Your task to perform on an android device: What's a good restaurant in Denver? Image 0: 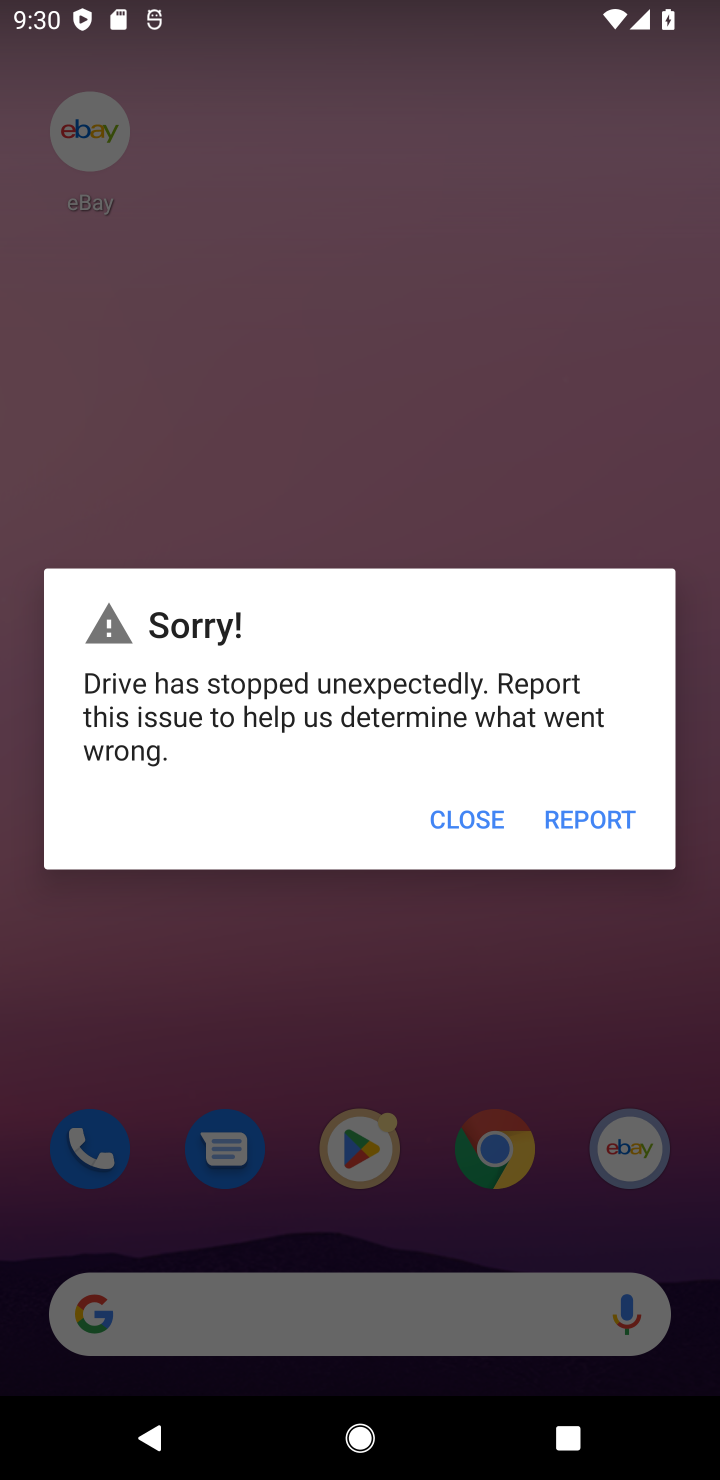
Step 0: press home button
Your task to perform on an android device: What's a good restaurant in Denver? Image 1: 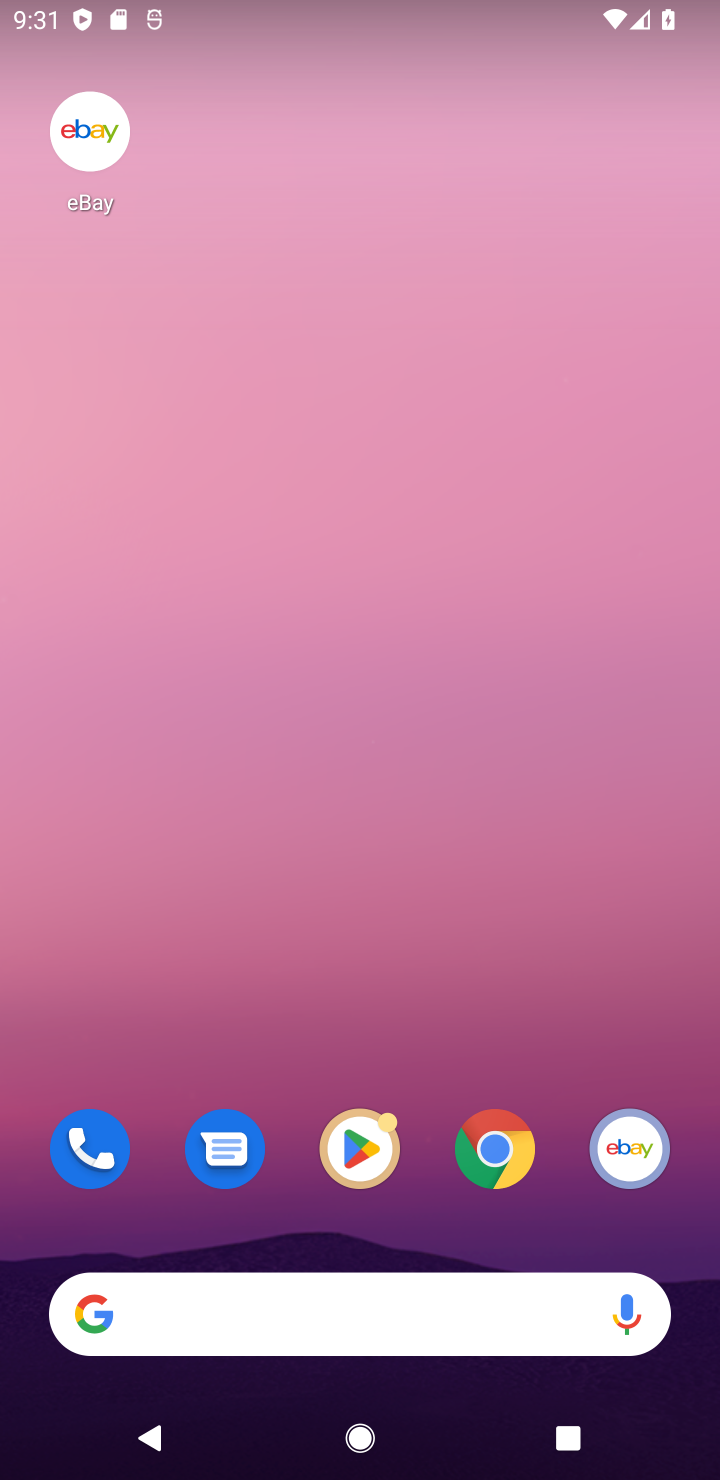
Step 1: click (420, 1291)
Your task to perform on an android device: What's a good restaurant in Denver? Image 2: 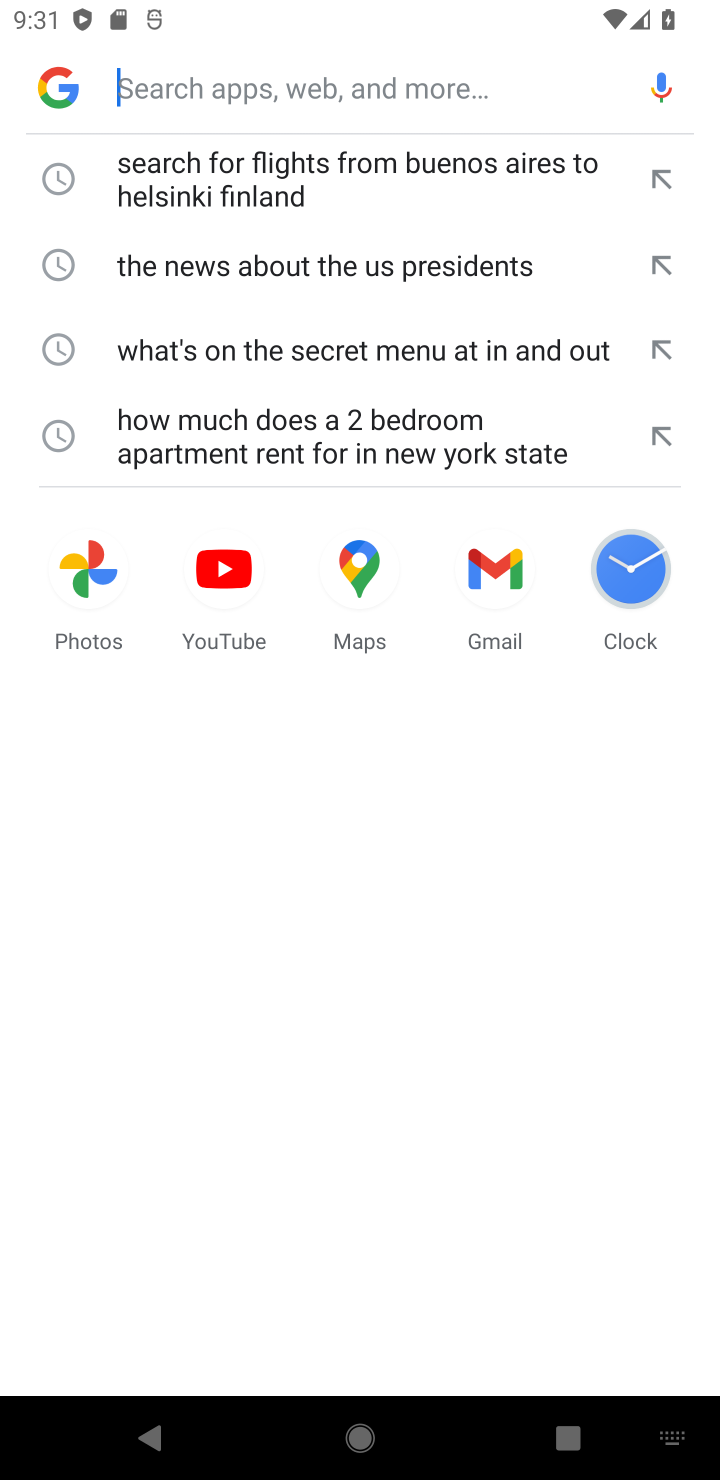
Step 2: type "What's a good restaurant in Denver?"
Your task to perform on an android device: What's a good restaurant in Denver? Image 3: 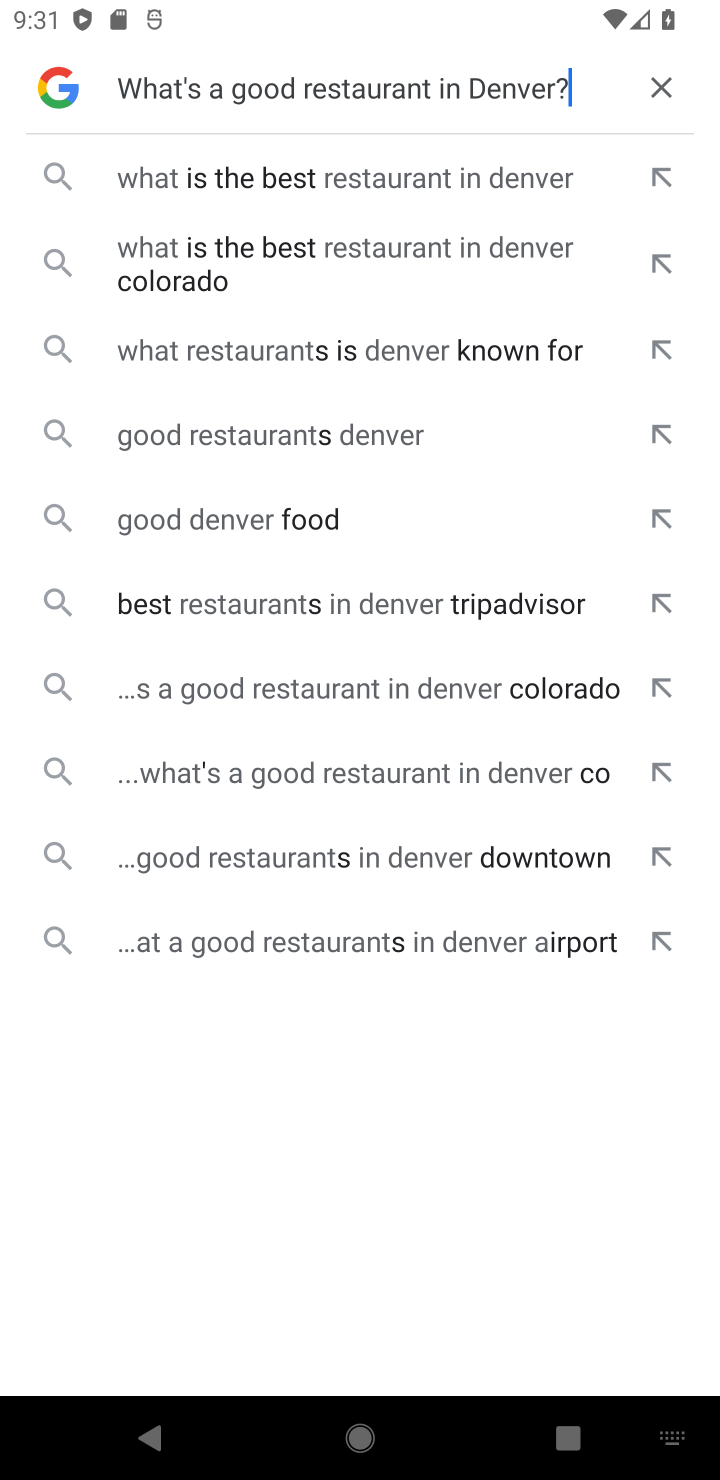
Step 3: click (458, 184)
Your task to perform on an android device: What's a good restaurant in Denver? Image 4: 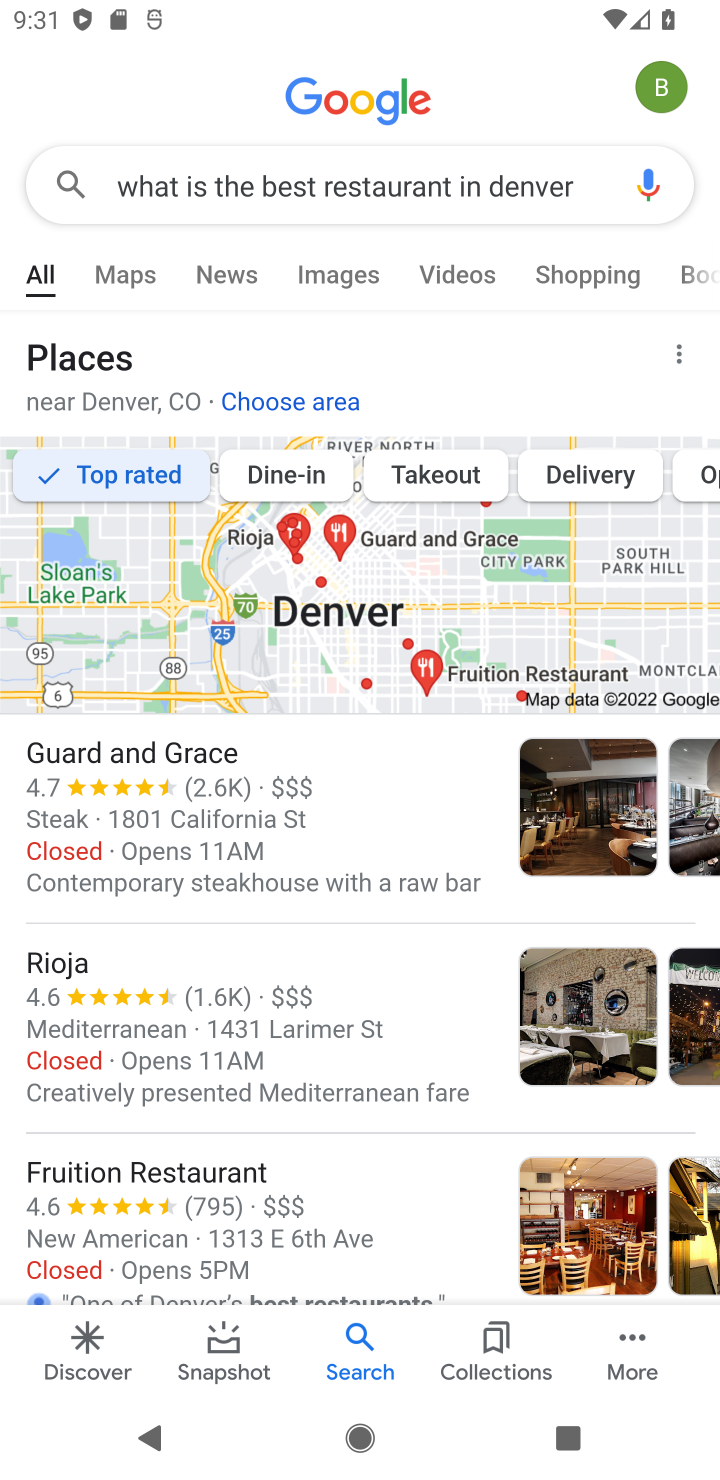
Step 4: task complete